Your task to perform on an android device: toggle pop-ups in chrome Image 0: 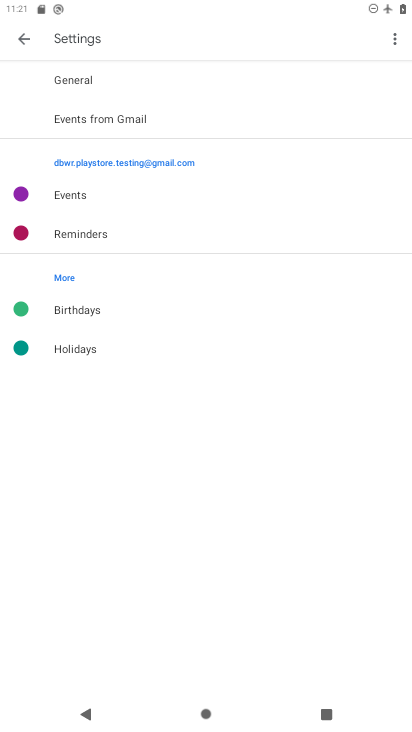
Step 0: press home button
Your task to perform on an android device: toggle pop-ups in chrome Image 1: 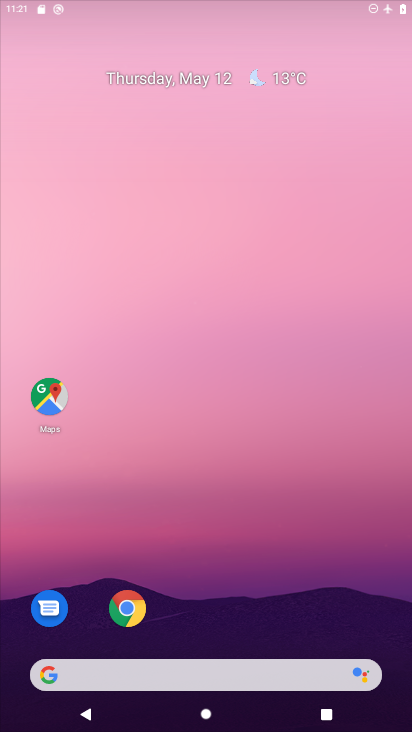
Step 1: drag from (213, 608) to (207, 142)
Your task to perform on an android device: toggle pop-ups in chrome Image 2: 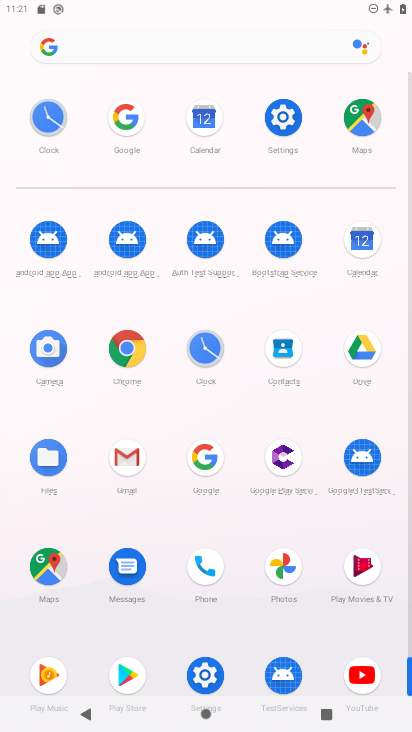
Step 2: click (128, 349)
Your task to perform on an android device: toggle pop-ups in chrome Image 3: 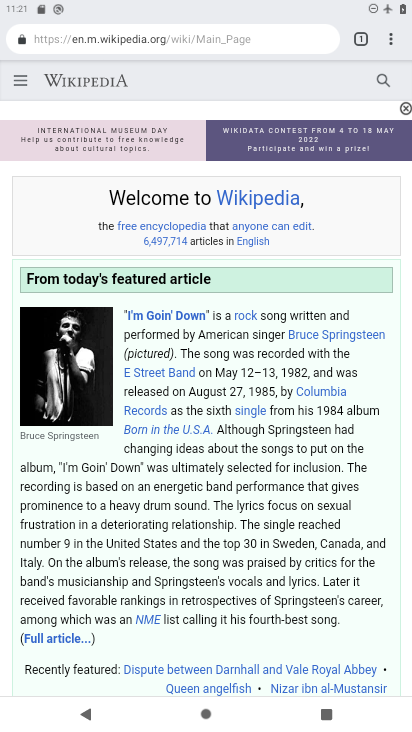
Step 3: click (385, 42)
Your task to perform on an android device: toggle pop-ups in chrome Image 4: 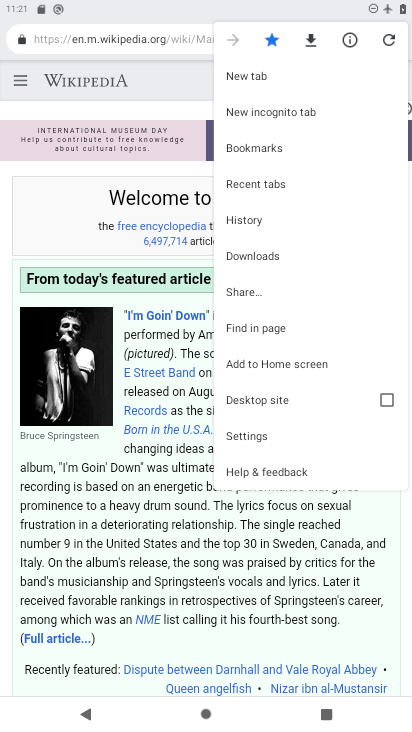
Step 4: click (273, 435)
Your task to perform on an android device: toggle pop-ups in chrome Image 5: 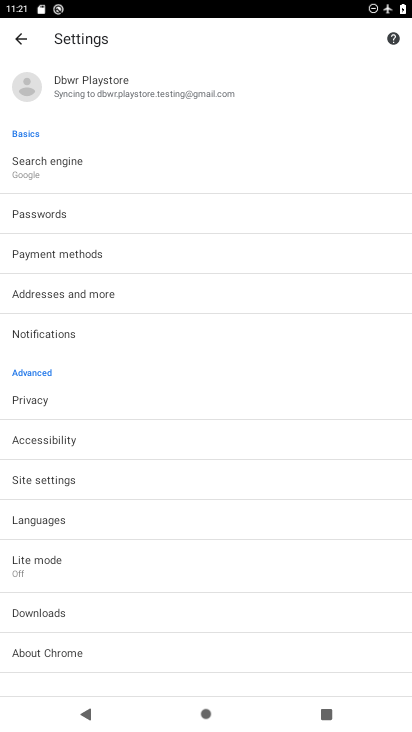
Step 5: click (114, 488)
Your task to perform on an android device: toggle pop-ups in chrome Image 6: 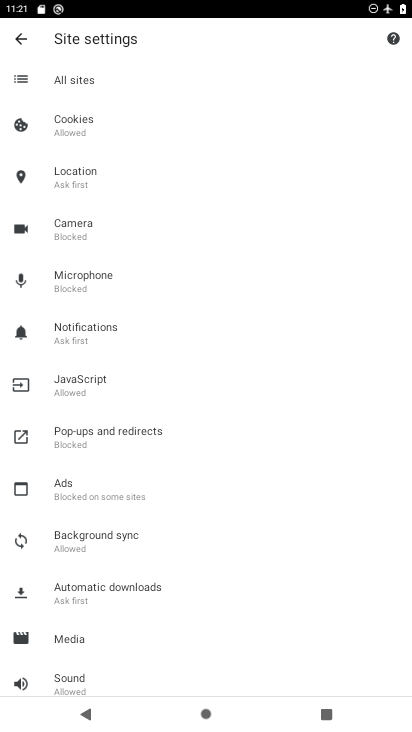
Step 6: click (92, 428)
Your task to perform on an android device: toggle pop-ups in chrome Image 7: 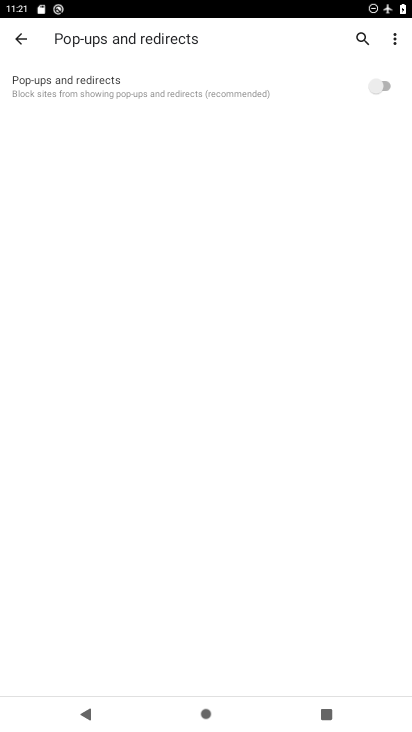
Step 7: click (378, 92)
Your task to perform on an android device: toggle pop-ups in chrome Image 8: 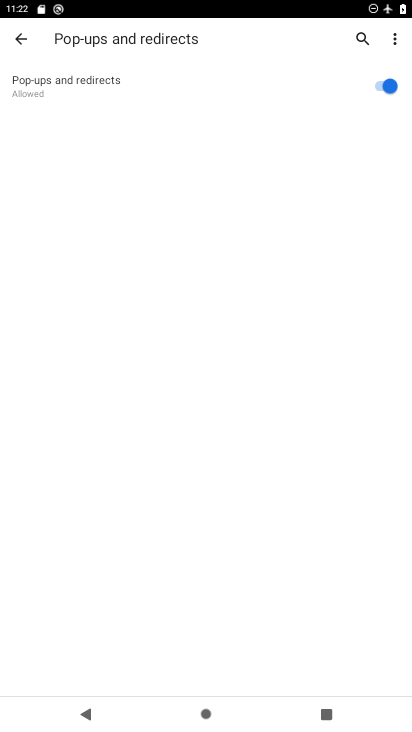
Step 8: task complete